Your task to perform on an android device: Search for Italian restaurants on Maps Image 0: 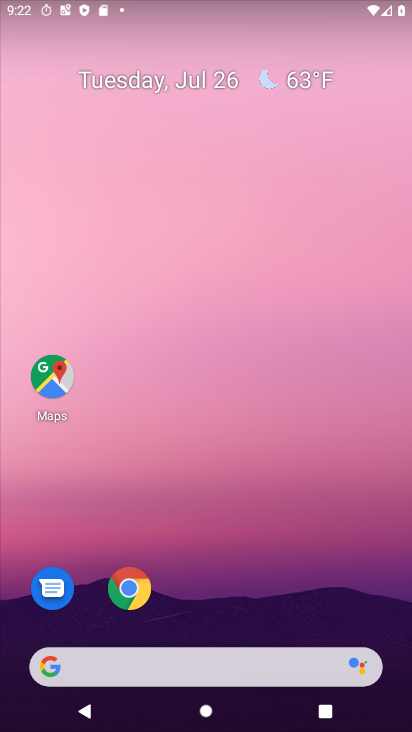
Step 0: click (60, 385)
Your task to perform on an android device: Search for Italian restaurants on Maps Image 1: 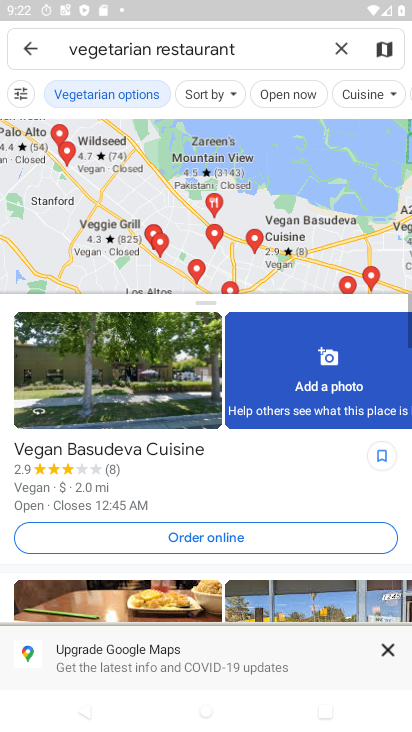
Step 1: click (345, 47)
Your task to perform on an android device: Search for Italian restaurants on Maps Image 2: 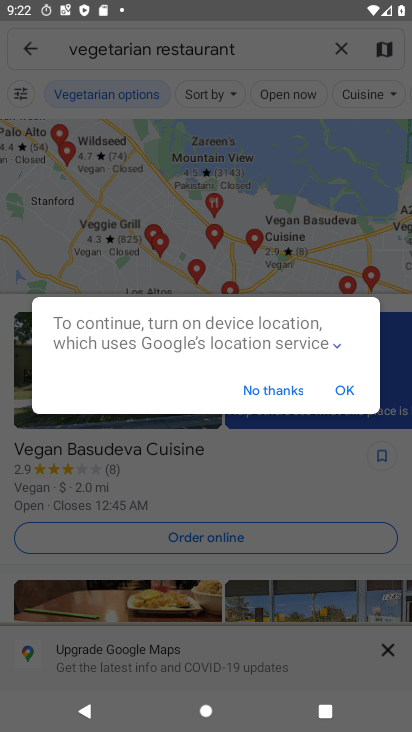
Step 2: click (354, 394)
Your task to perform on an android device: Search for Italian restaurants on Maps Image 3: 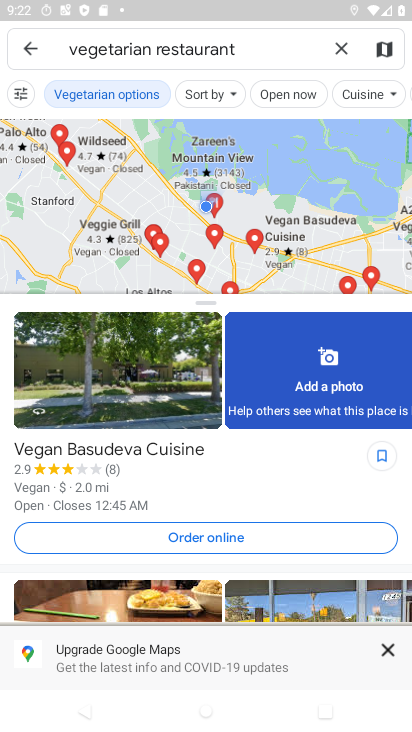
Step 3: click (345, 49)
Your task to perform on an android device: Search for Italian restaurants on Maps Image 4: 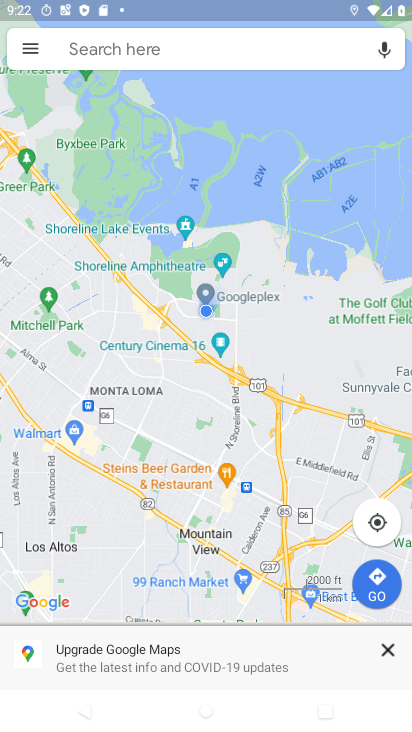
Step 4: click (293, 45)
Your task to perform on an android device: Search for Italian restaurants on Maps Image 5: 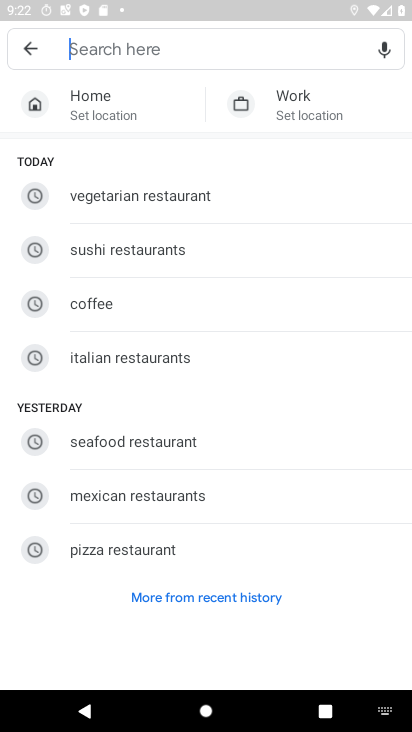
Step 5: click (145, 378)
Your task to perform on an android device: Search for Italian restaurants on Maps Image 6: 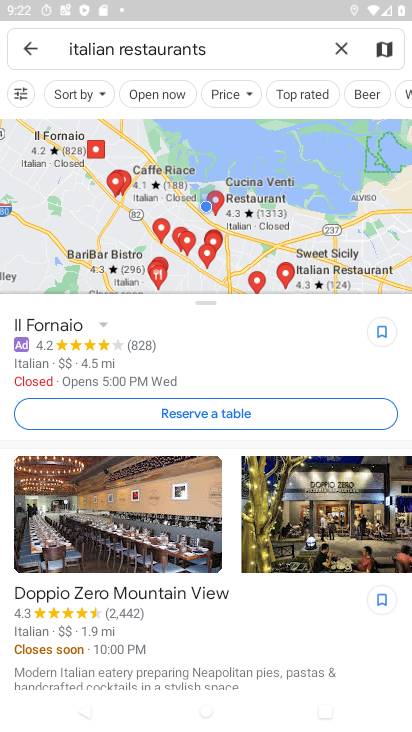
Step 6: task complete